Your task to perform on an android device: turn on improve location accuracy Image 0: 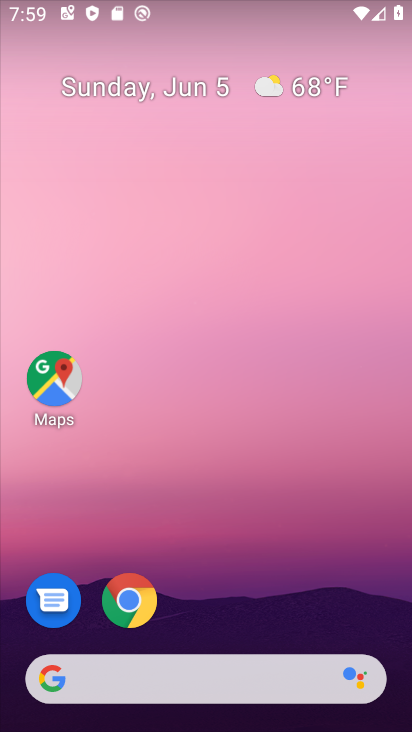
Step 0: drag from (214, 589) to (123, 21)
Your task to perform on an android device: turn on improve location accuracy Image 1: 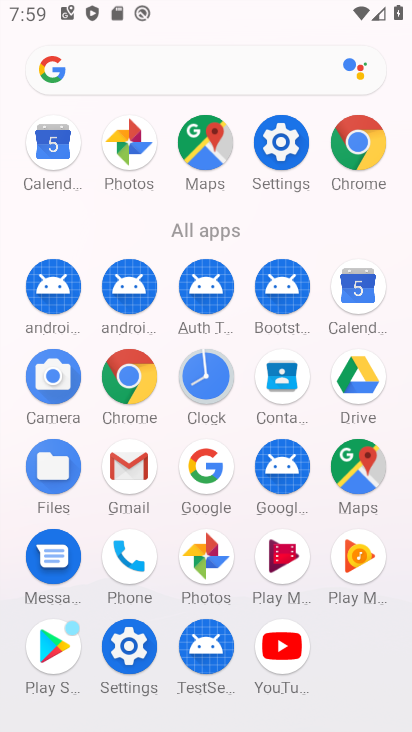
Step 1: click (290, 144)
Your task to perform on an android device: turn on improve location accuracy Image 2: 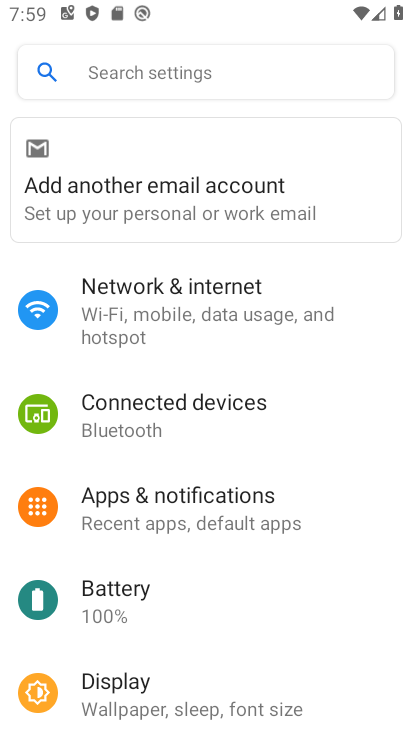
Step 2: drag from (213, 623) to (212, 141)
Your task to perform on an android device: turn on improve location accuracy Image 3: 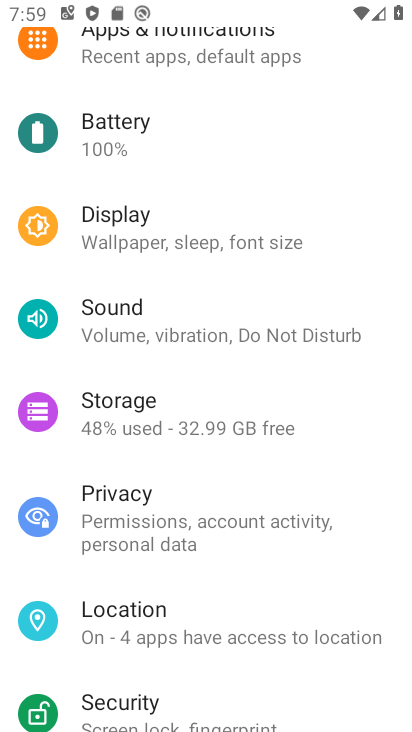
Step 3: drag from (220, 130) to (210, 278)
Your task to perform on an android device: turn on improve location accuracy Image 4: 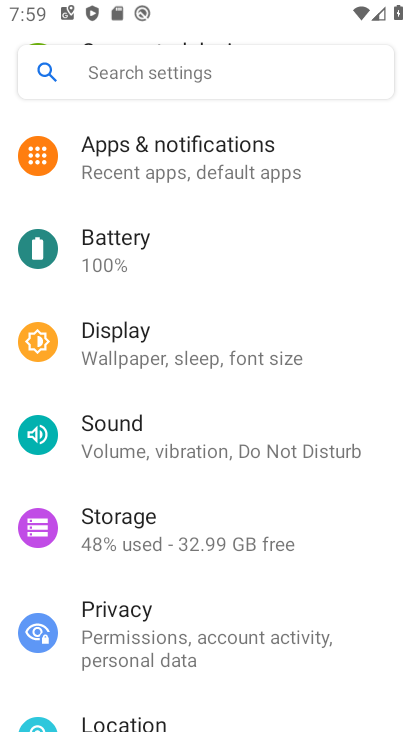
Step 4: drag from (194, 481) to (208, 270)
Your task to perform on an android device: turn on improve location accuracy Image 5: 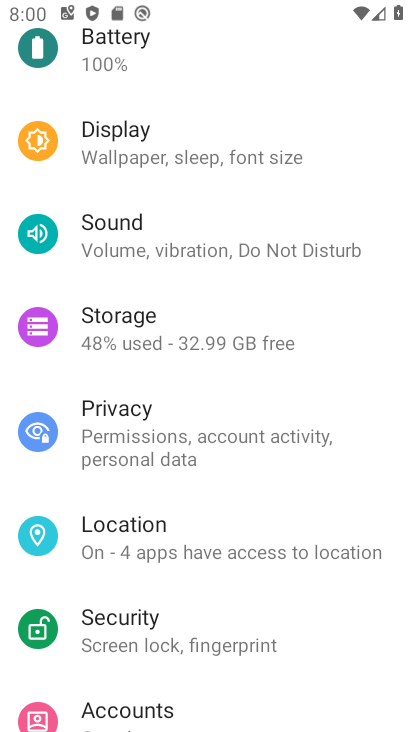
Step 5: click (195, 543)
Your task to perform on an android device: turn on improve location accuracy Image 6: 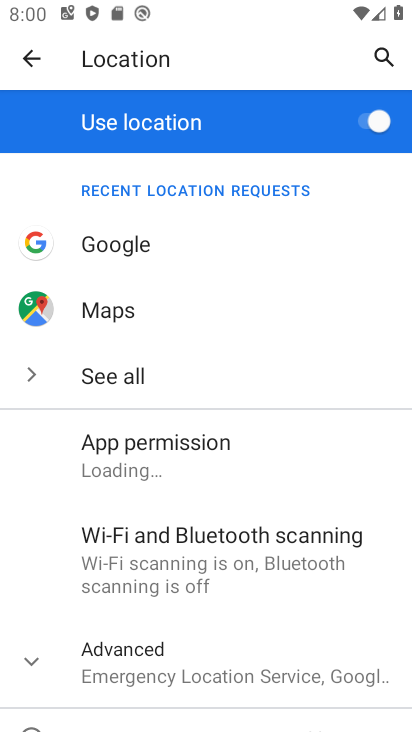
Step 6: drag from (231, 489) to (239, 216)
Your task to perform on an android device: turn on improve location accuracy Image 7: 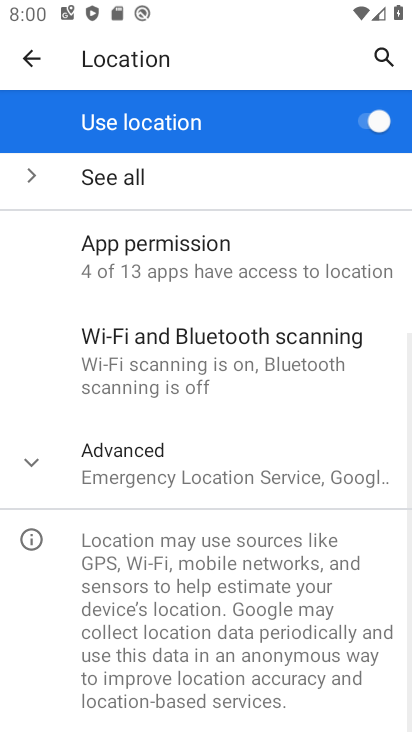
Step 7: click (38, 465)
Your task to perform on an android device: turn on improve location accuracy Image 8: 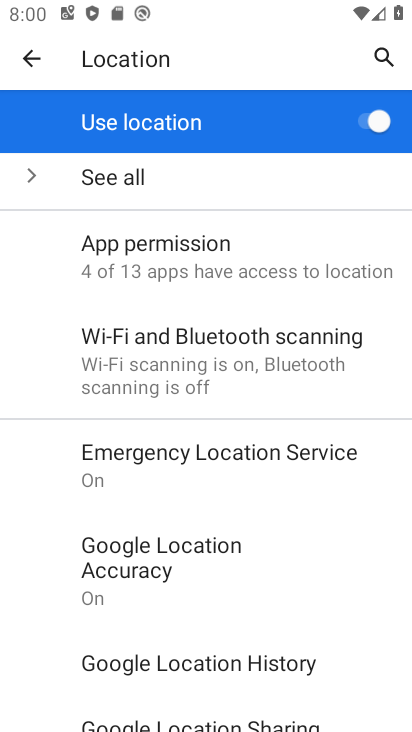
Step 8: click (194, 564)
Your task to perform on an android device: turn on improve location accuracy Image 9: 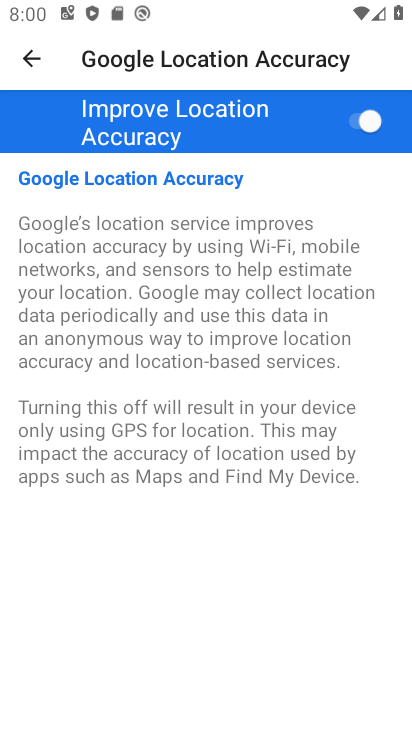
Step 9: task complete